Your task to perform on an android device: Search for Italian restaurants on Maps Image 0: 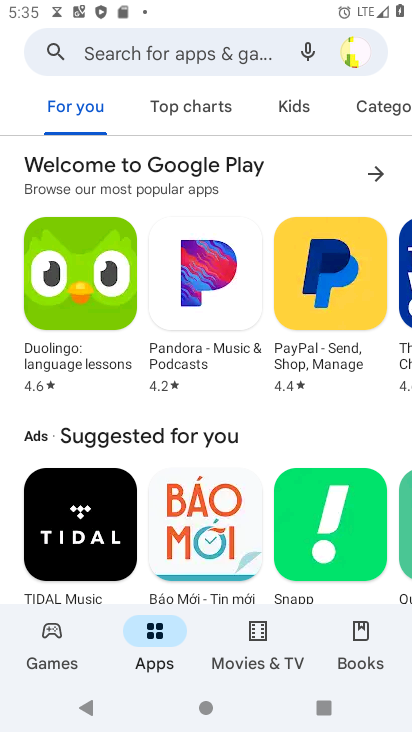
Step 0: press home button
Your task to perform on an android device: Search for Italian restaurants on Maps Image 1: 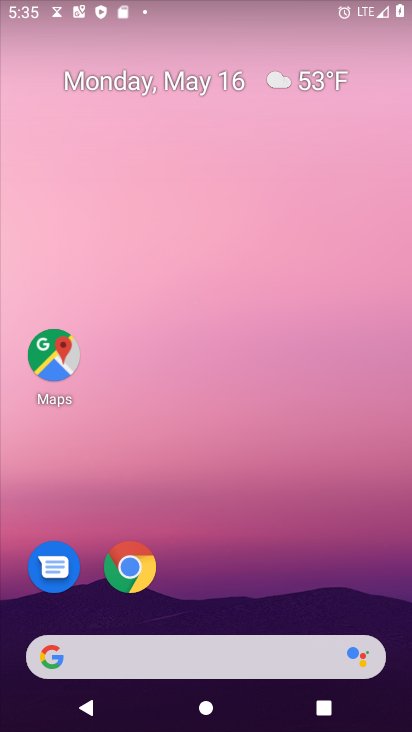
Step 1: drag from (255, 658) to (361, 5)
Your task to perform on an android device: Search for Italian restaurants on Maps Image 2: 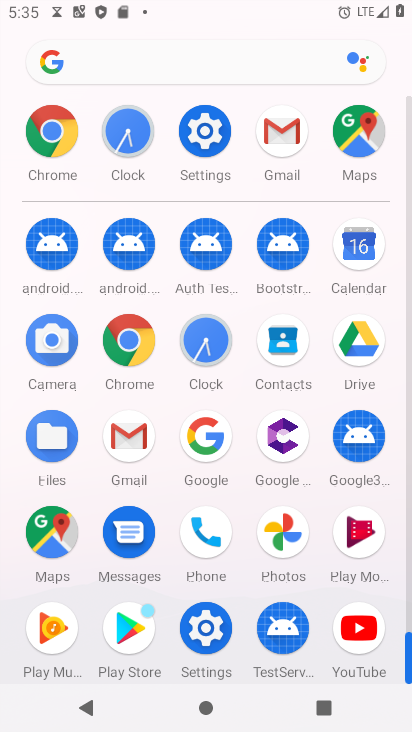
Step 2: click (73, 539)
Your task to perform on an android device: Search for Italian restaurants on Maps Image 3: 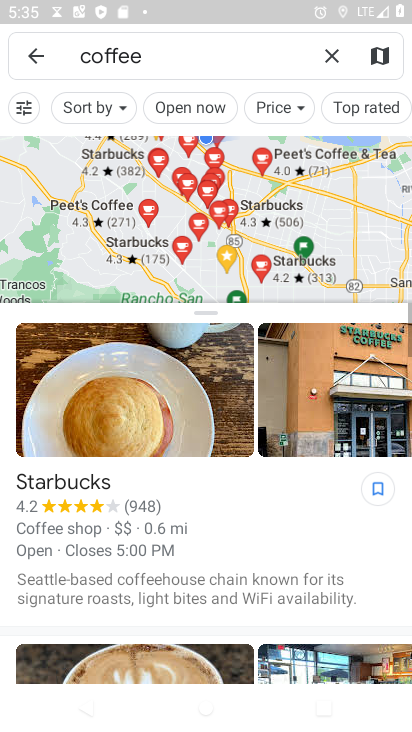
Step 3: click (334, 53)
Your task to perform on an android device: Search for Italian restaurants on Maps Image 4: 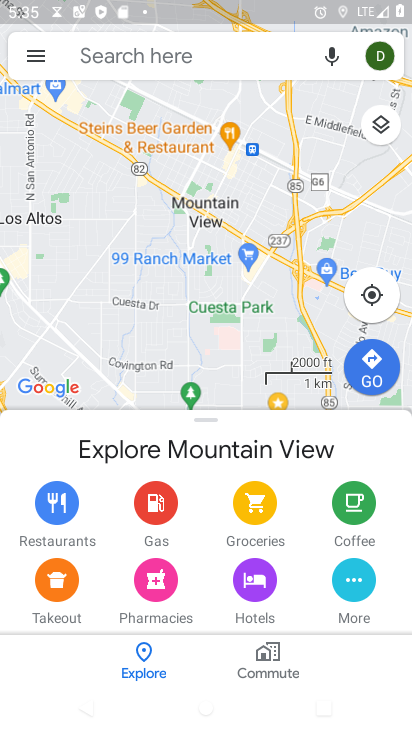
Step 4: click (255, 46)
Your task to perform on an android device: Search for Italian restaurants on Maps Image 5: 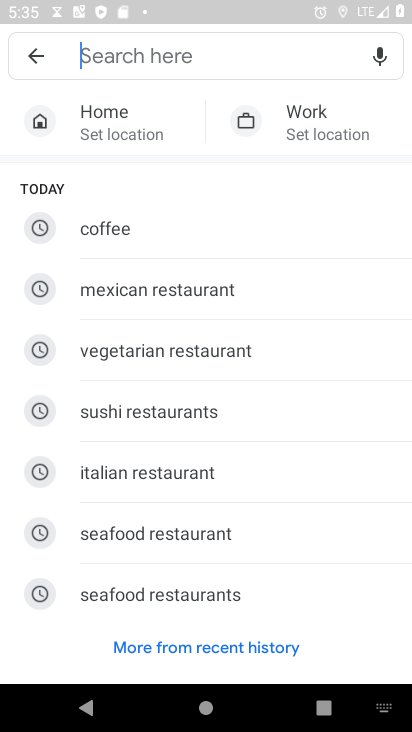
Step 5: click (185, 476)
Your task to perform on an android device: Search for Italian restaurants on Maps Image 6: 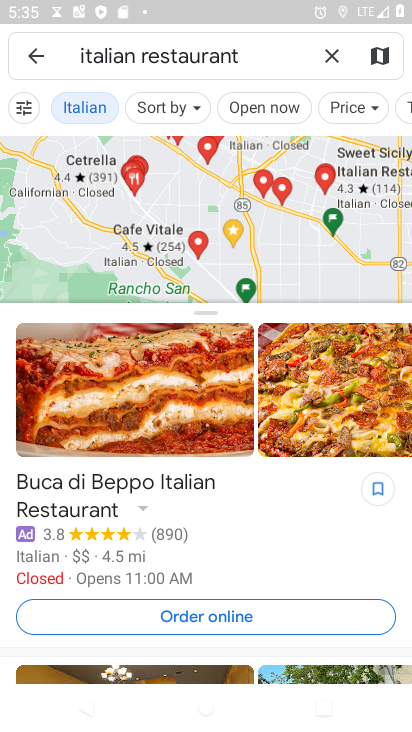
Step 6: task complete